Your task to perform on an android device: turn on showing notifications on the lock screen Image 0: 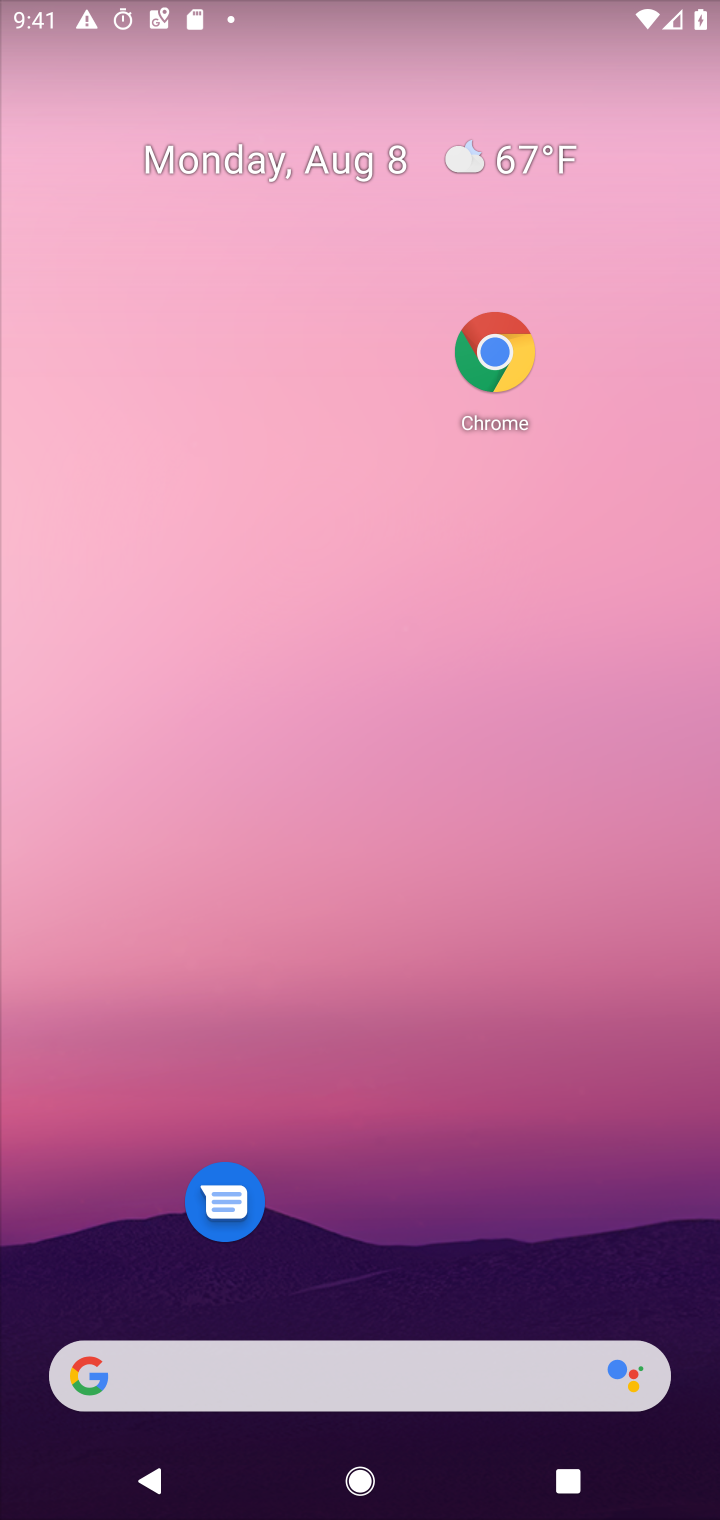
Step 0: drag from (305, 1104) to (709, 638)
Your task to perform on an android device: turn on showing notifications on the lock screen Image 1: 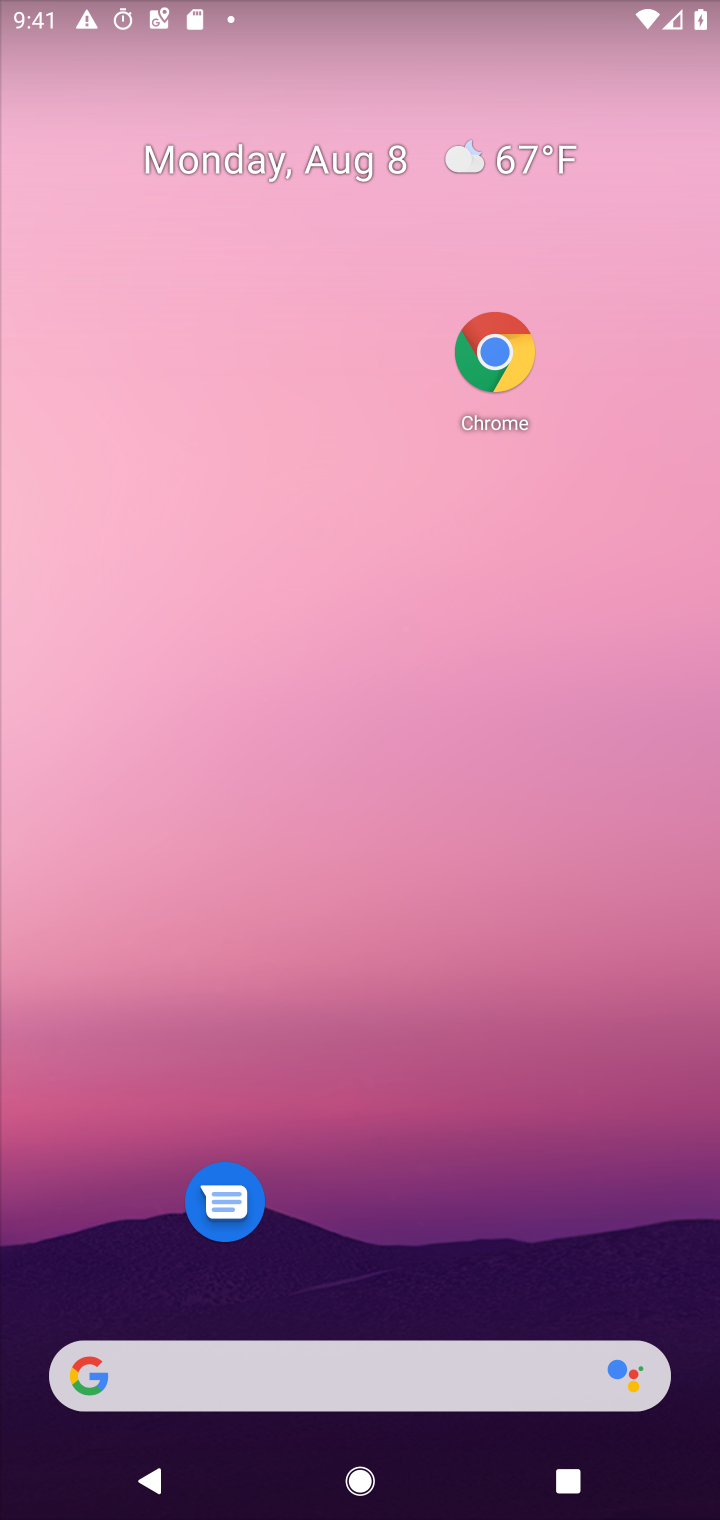
Step 1: drag from (372, 1258) to (419, 82)
Your task to perform on an android device: turn on showing notifications on the lock screen Image 2: 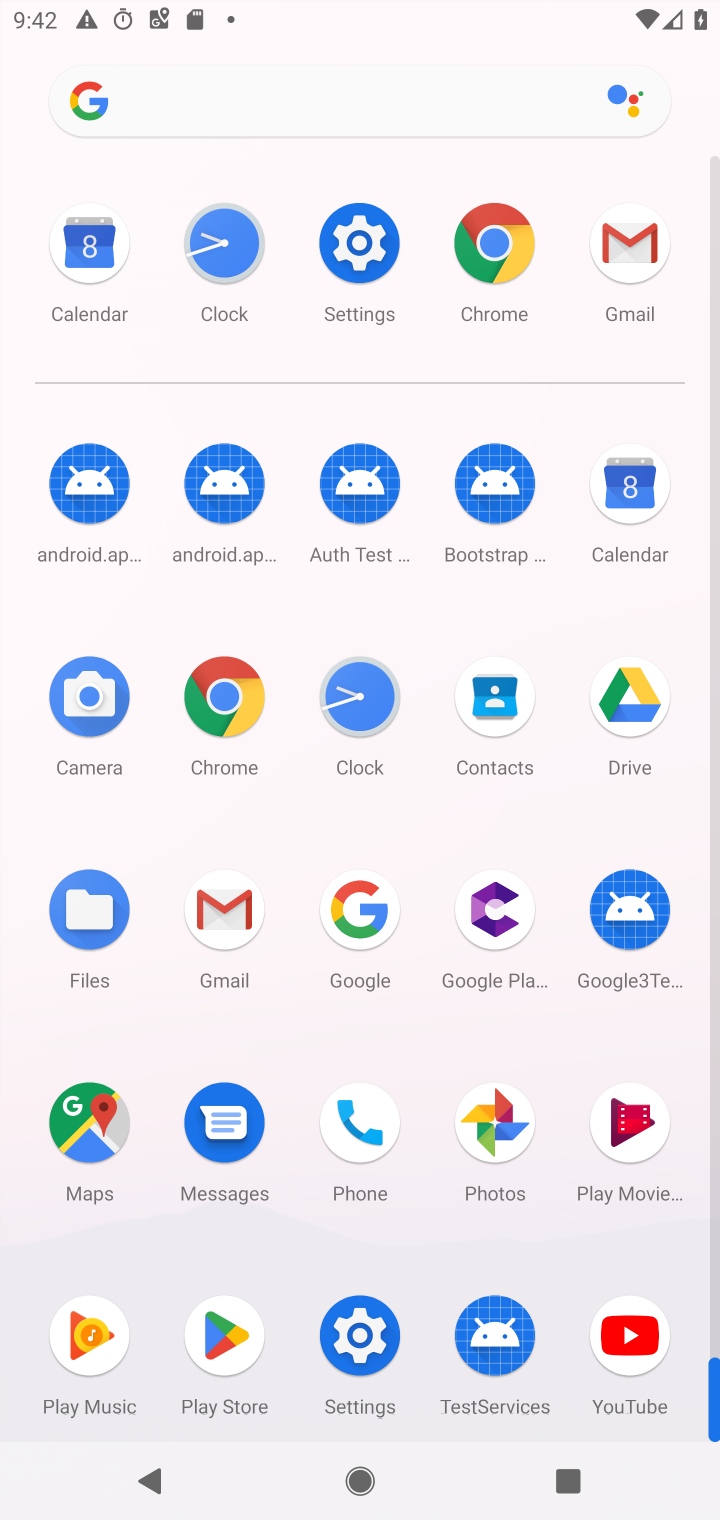
Step 2: click (374, 271)
Your task to perform on an android device: turn on showing notifications on the lock screen Image 3: 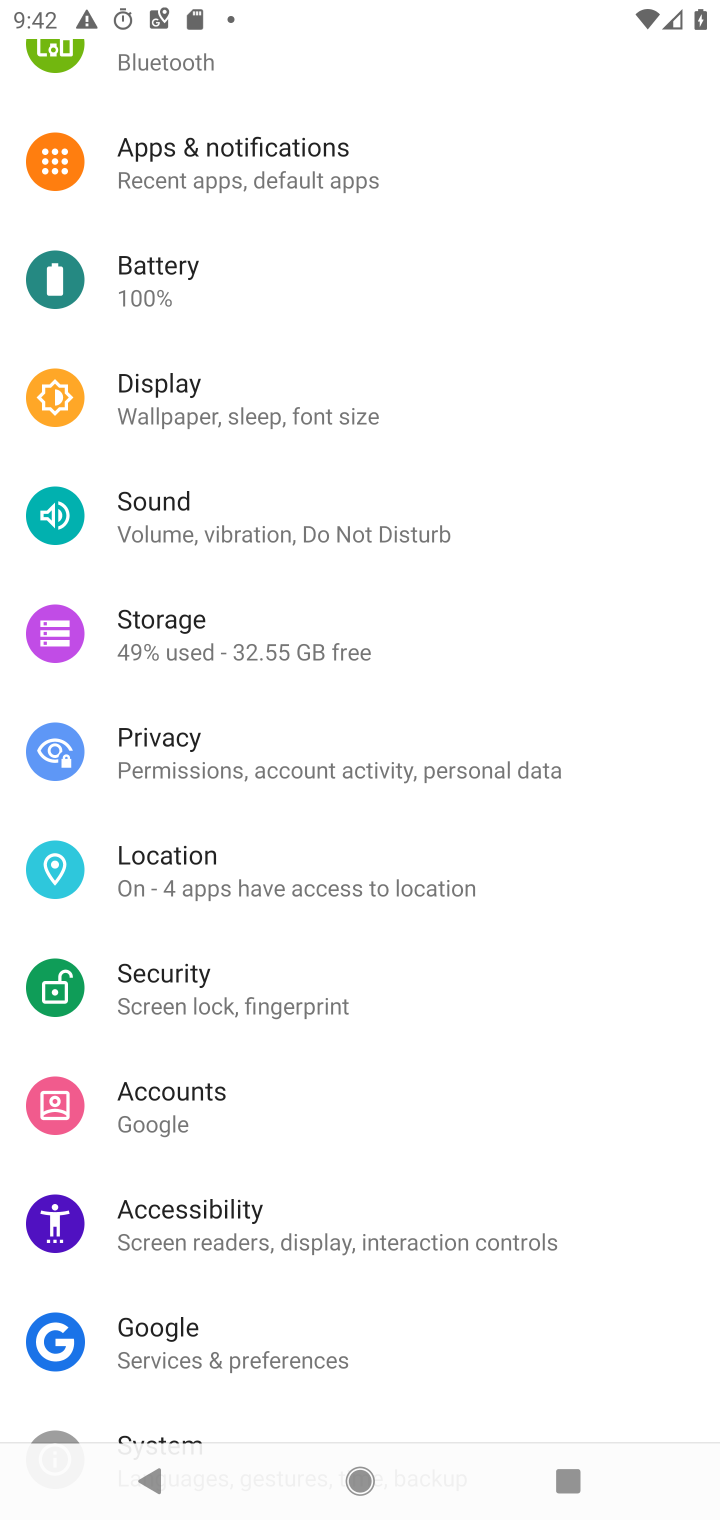
Step 3: click (274, 171)
Your task to perform on an android device: turn on showing notifications on the lock screen Image 4: 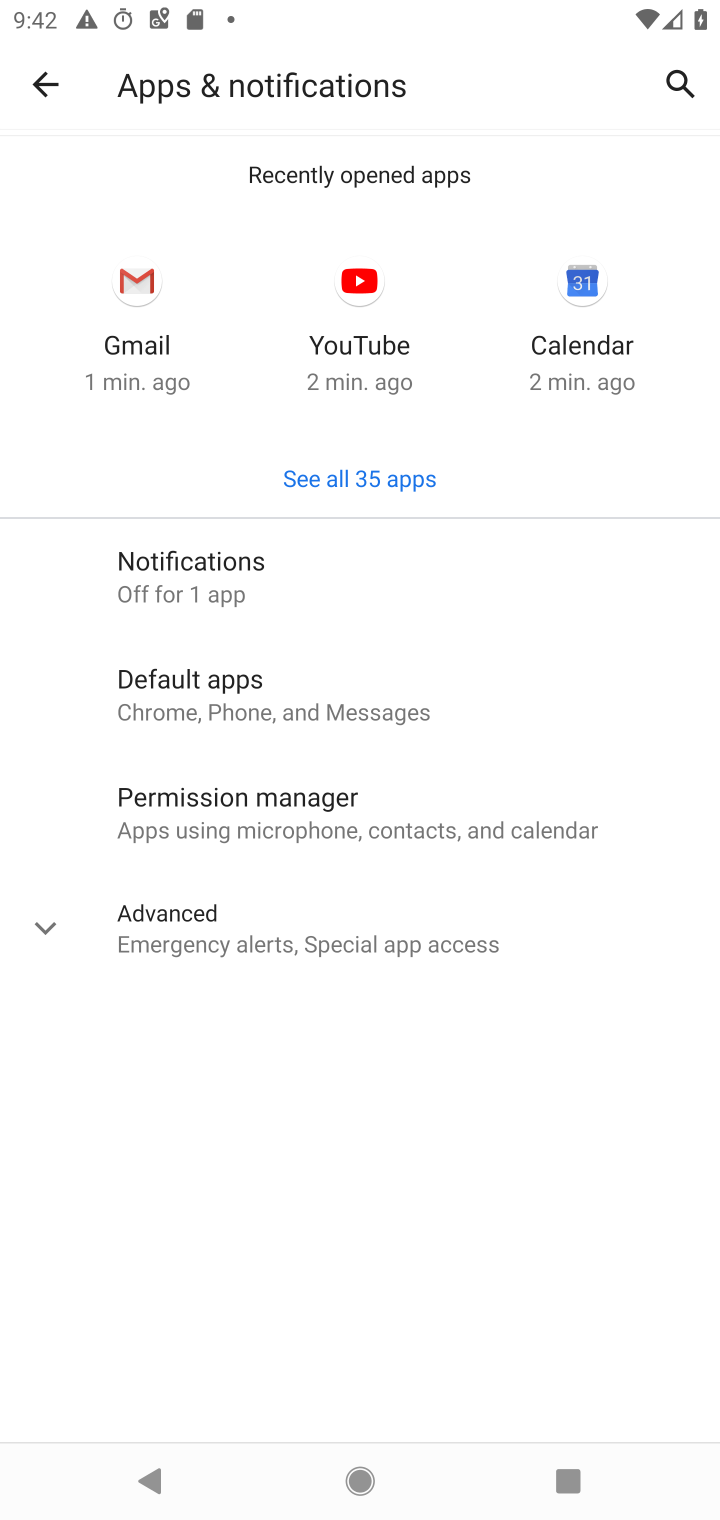
Step 4: click (201, 628)
Your task to perform on an android device: turn on showing notifications on the lock screen Image 5: 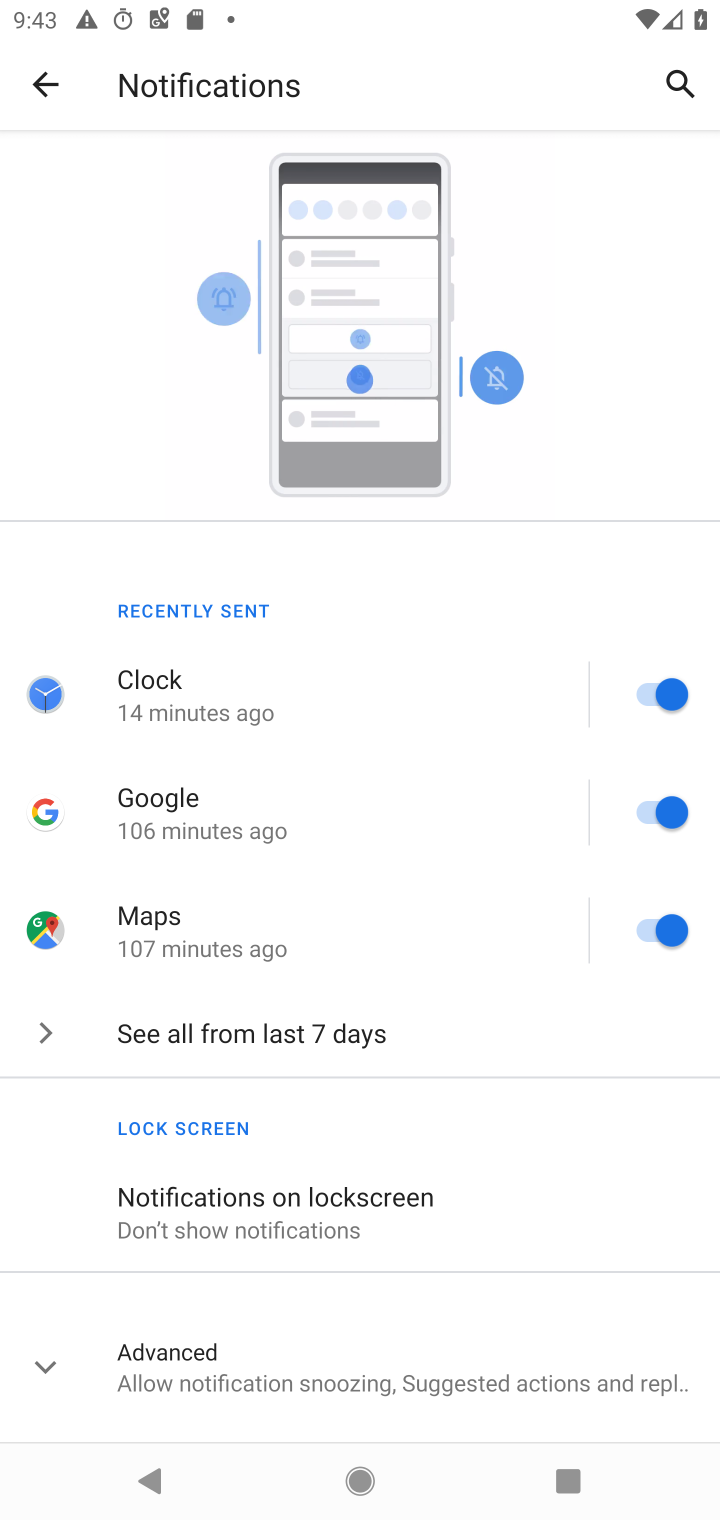
Step 5: click (335, 1219)
Your task to perform on an android device: turn on showing notifications on the lock screen Image 6: 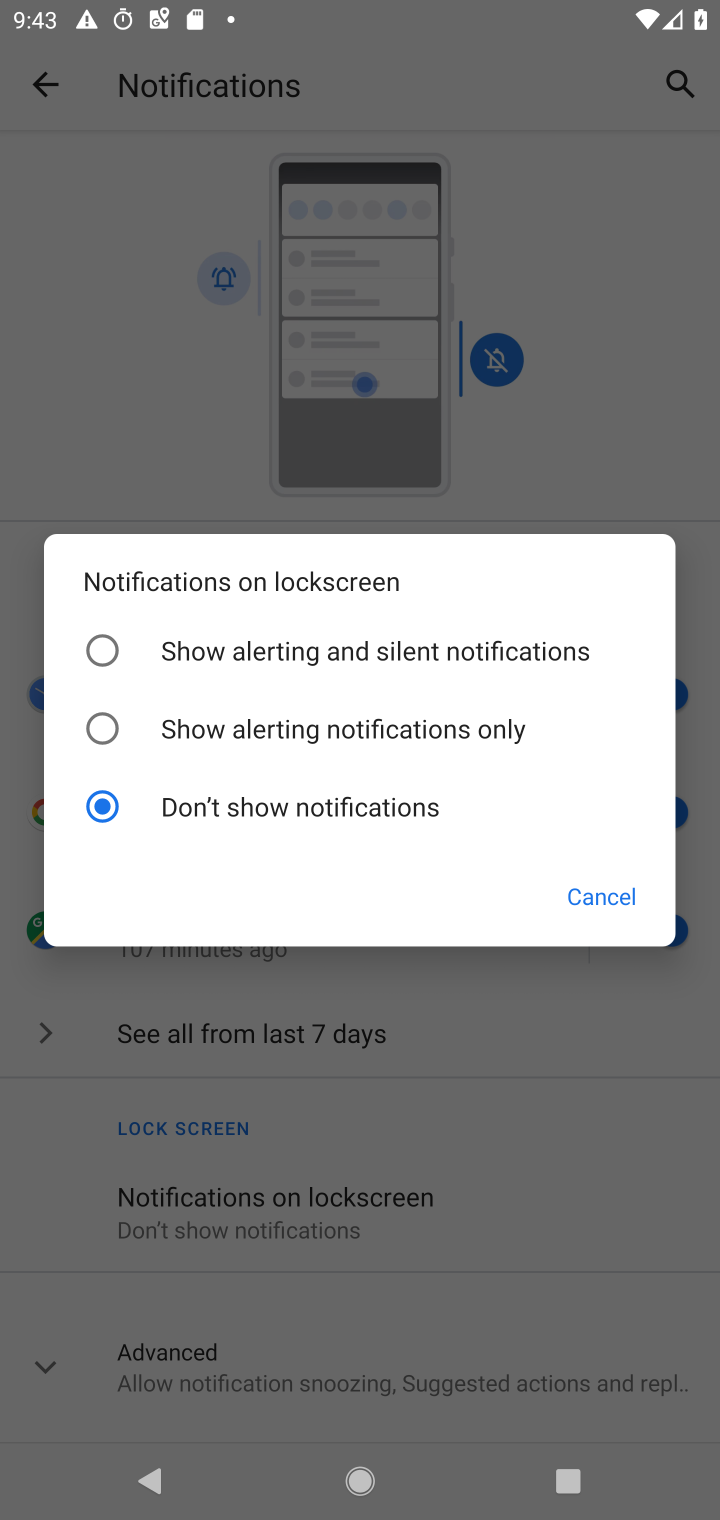
Step 6: click (457, 664)
Your task to perform on an android device: turn on showing notifications on the lock screen Image 7: 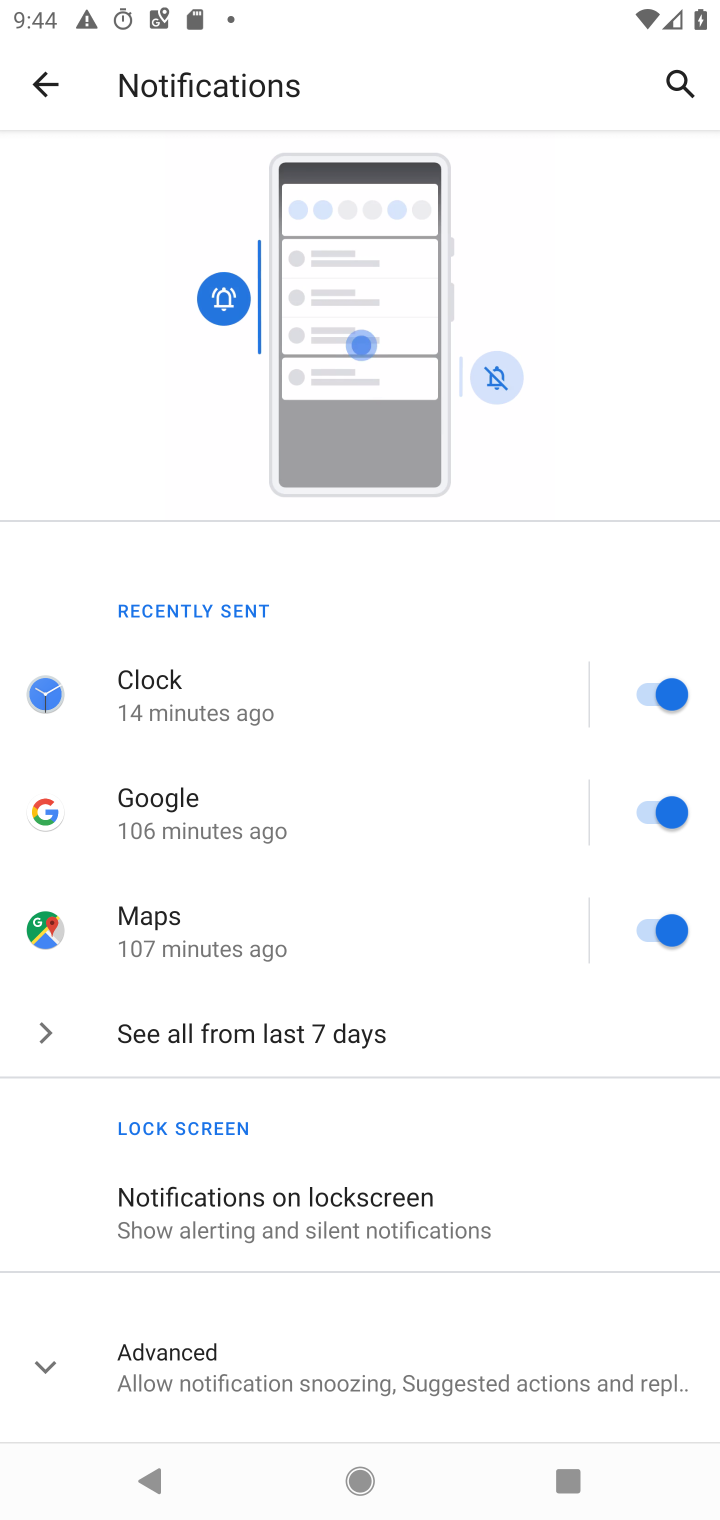
Step 7: task complete